Your task to perform on an android device: turn on priority inbox in the gmail app Image 0: 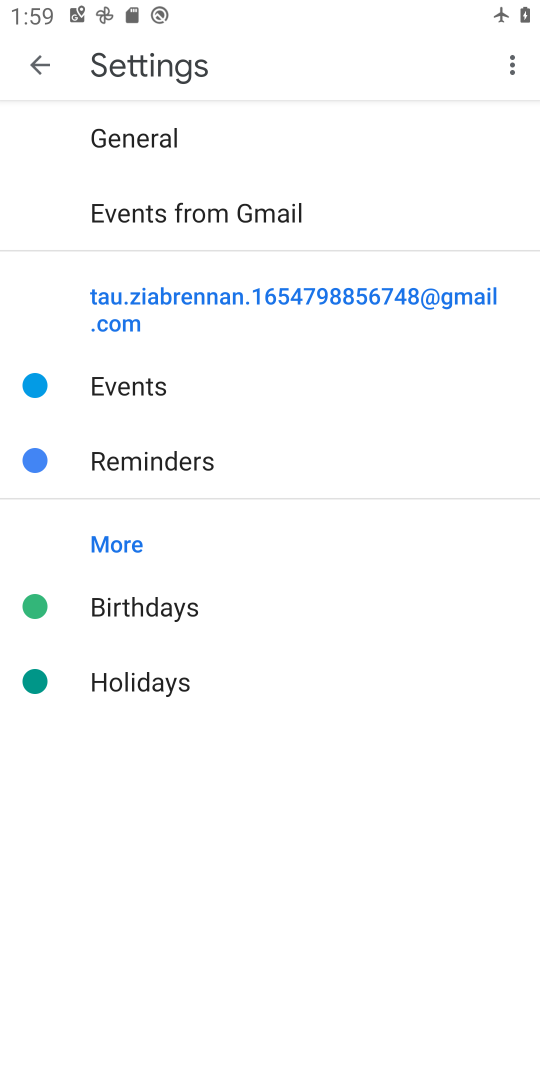
Step 0: press home button
Your task to perform on an android device: turn on priority inbox in the gmail app Image 1: 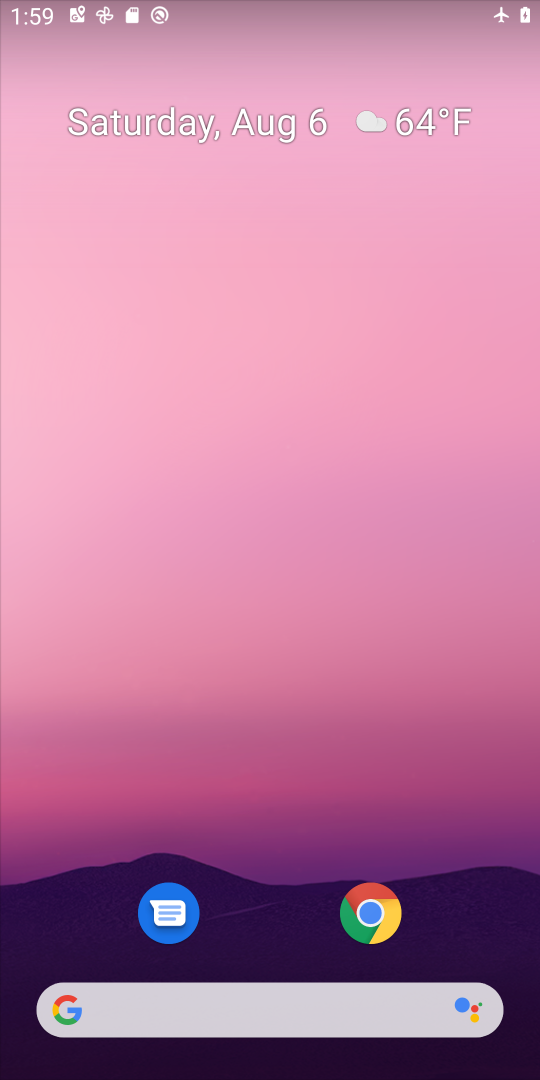
Step 1: drag from (478, 928) to (499, 285)
Your task to perform on an android device: turn on priority inbox in the gmail app Image 2: 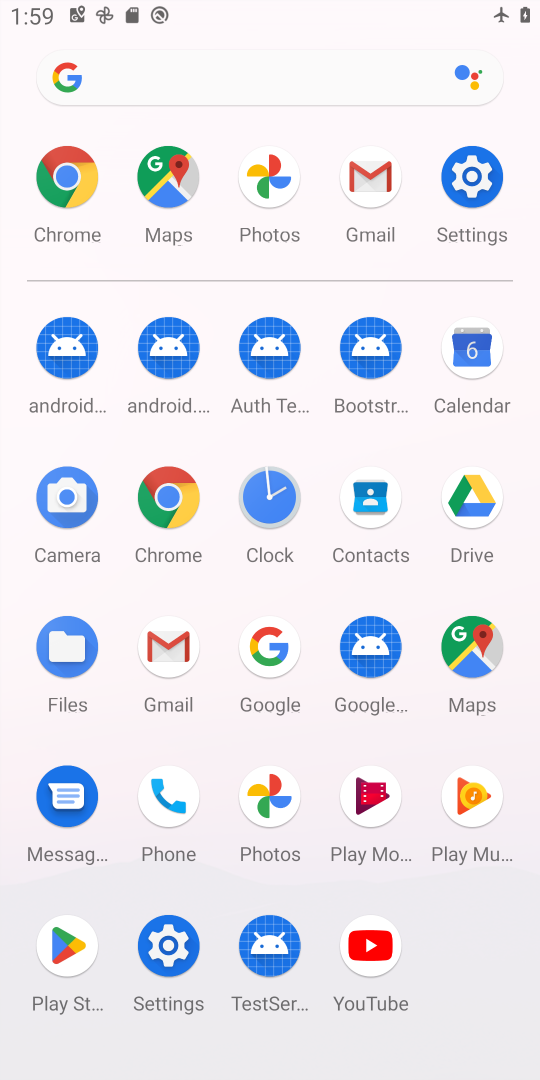
Step 2: click (166, 651)
Your task to perform on an android device: turn on priority inbox in the gmail app Image 3: 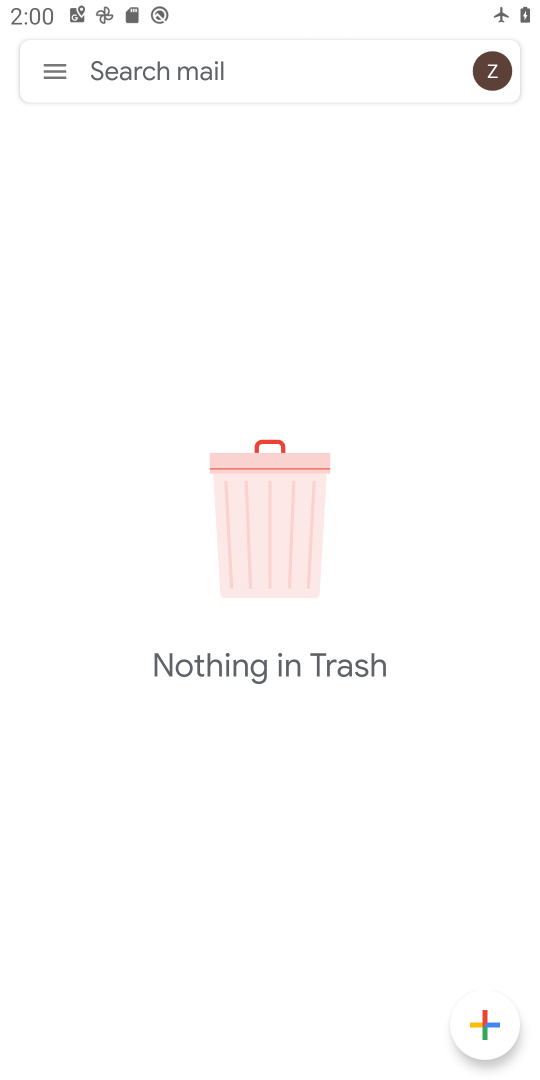
Step 3: click (54, 71)
Your task to perform on an android device: turn on priority inbox in the gmail app Image 4: 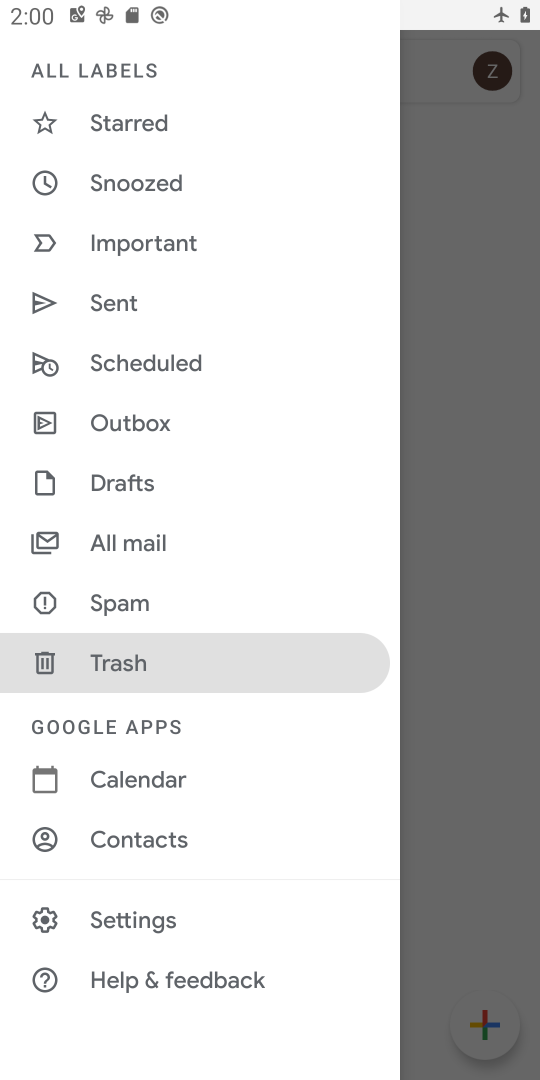
Step 4: click (157, 920)
Your task to perform on an android device: turn on priority inbox in the gmail app Image 5: 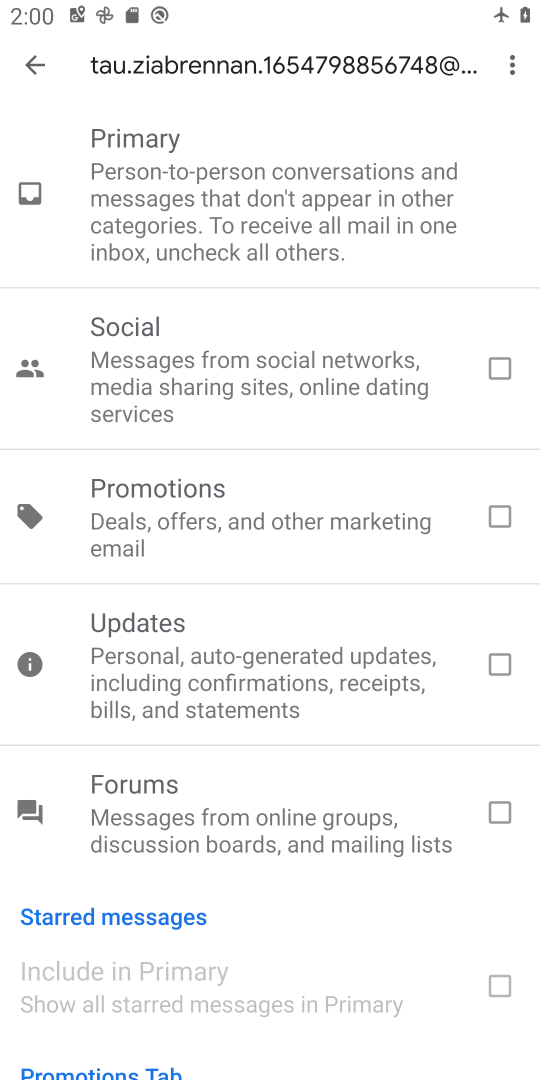
Step 5: press back button
Your task to perform on an android device: turn on priority inbox in the gmail app Image 6: 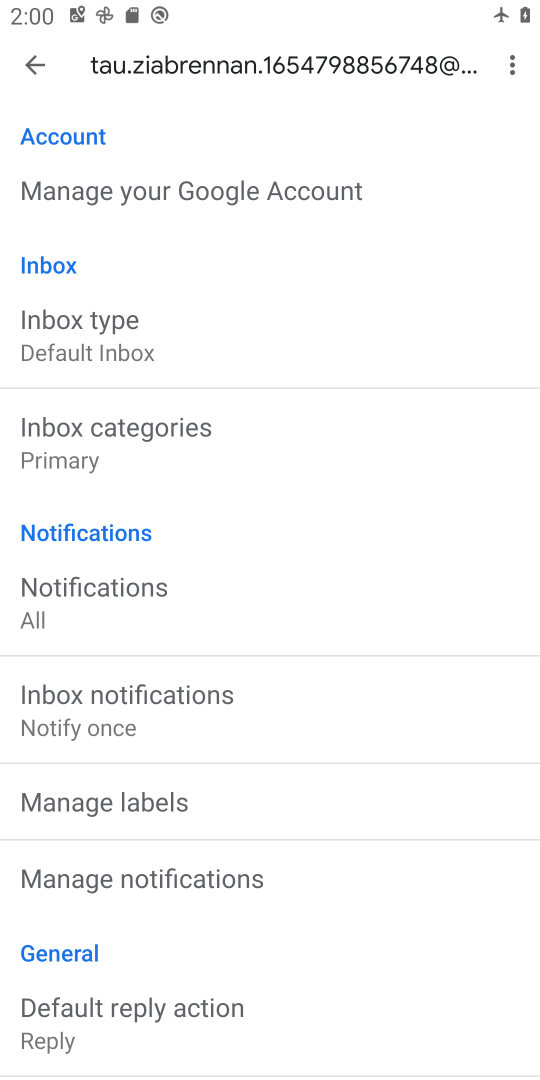
Step 6: drag from (403, 340) to (404, 478)
Your task to perform on an android device: turn on priority inbox in the gmail app Image 7: 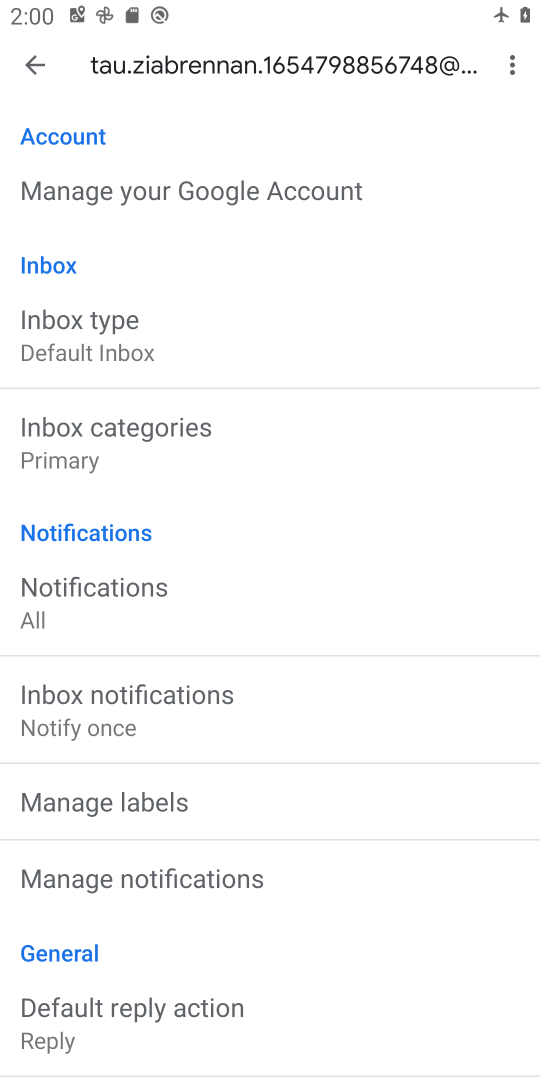
Step 7: click (164, 351)
Your task to perform on an android device: turn on priority inbox in the gmail app Image 8: 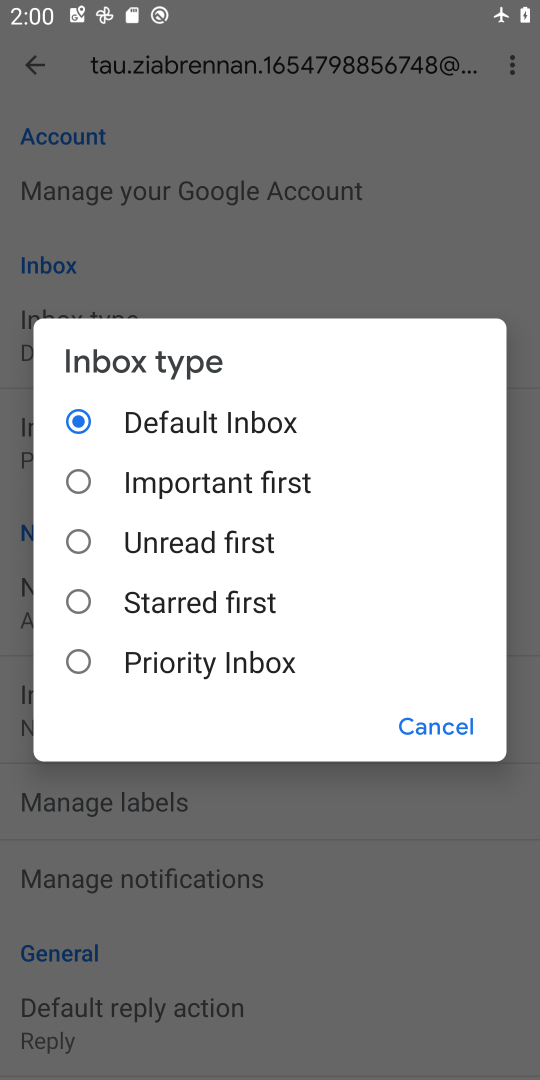
Step 8: click (274, 651)
Your task to perform on an android device: turn on priority inbox in the gmail app Image 9: 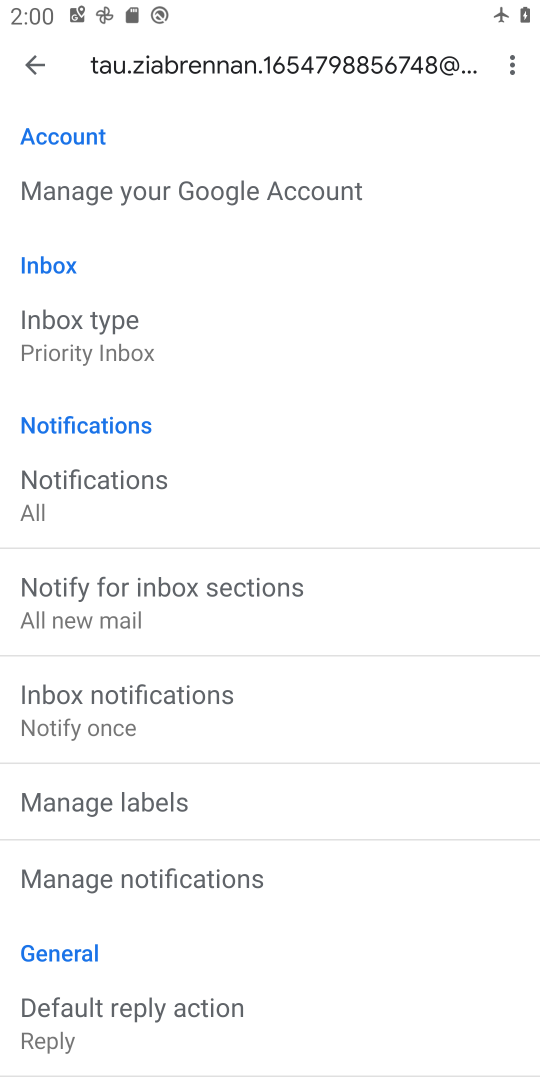
Step 9: task complete